Your task to perform on an android device: search for starred emails in the gmail app Image 0: 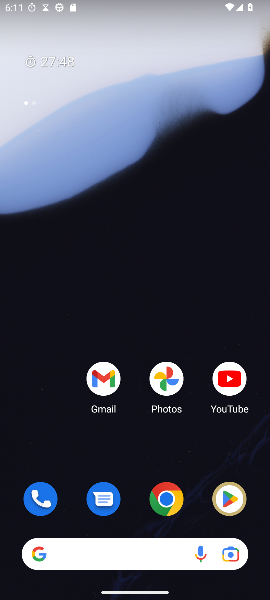
Step 0: drag from (40, 540) to (17, 25)
Your task to perform on an android device: search for starred emails in the gmail app Image 1: 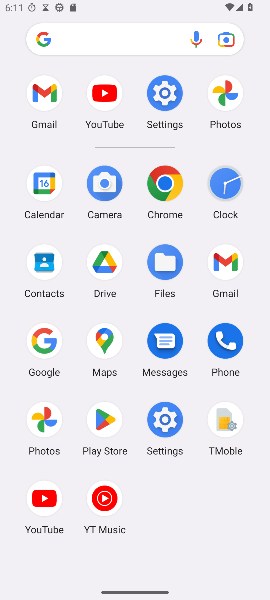
Step 1: click (28, 101)
Your task to perform on an android device: search for starred emails in the gmail app Image 2: 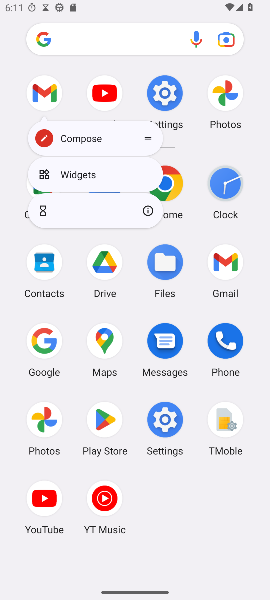
Step 2: click (41, 98)
Your task to perform on an android device: search for starred emails in the gmail app Image 3: 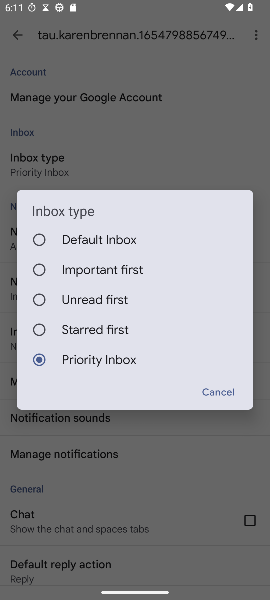
Step 3: click (218, 393)
Your task to perform on an android device: search for starred emails in the gmail app Image 4: 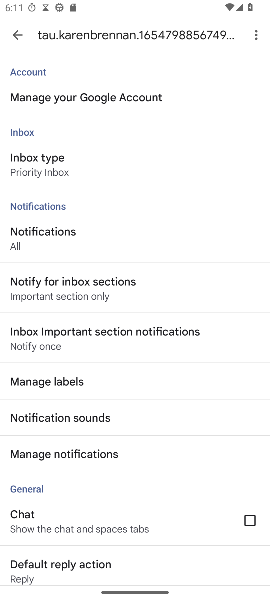
Step 4: click (13, 29)
Your task to perform on an android device: search for starred emails in the gmail app Image 5: 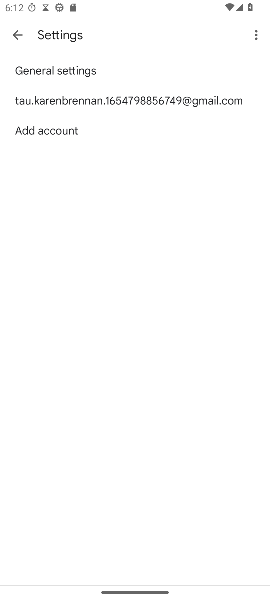
Step 5: click (30, 102)
Your task to perform on an android device: search for starred emails in the gmail app Image 6: 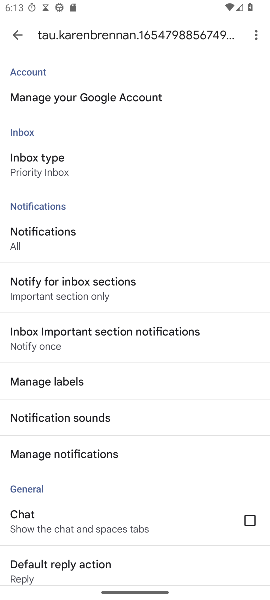
Step 6: click (18, 31)
Your task to perform on an android device: search for starred emails in the gmail app Image 7: 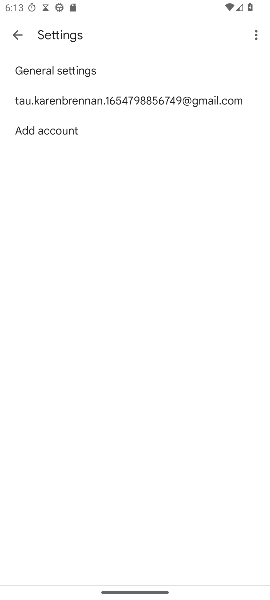
Step 7: click (16, 33)
Your task to perform on an android device: search for starred emails in the gmail app Image 8: 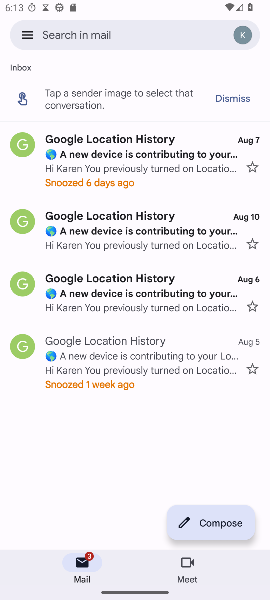
Step 8: click (29, 32)
Your task to perform on an android device: search for starred emails in the gmail app Image 9: 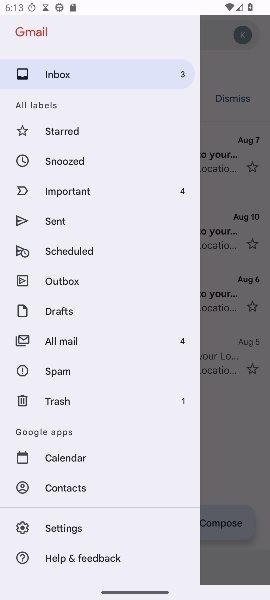
Step 9: click (63, 139)
Your task to perform on an android device: search for starred emails in the gmail app Image 10: 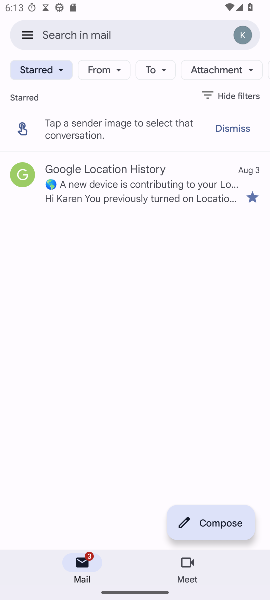
Step 10: task complete